Your task to perform on an android device: Open Google Chrome and click the shortcut for Amazon.com Image 0: 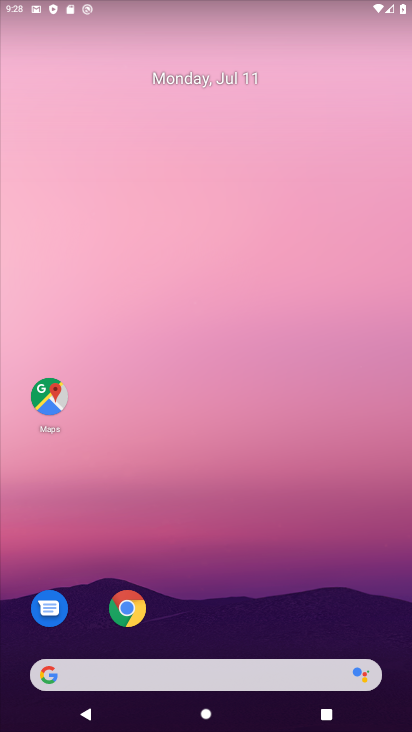
Step 0: drag from (246, 693) to (163, 178)
Your task to perform on an android device: Open Google Chrome and click the shortcut for Amazon.com Image 1: 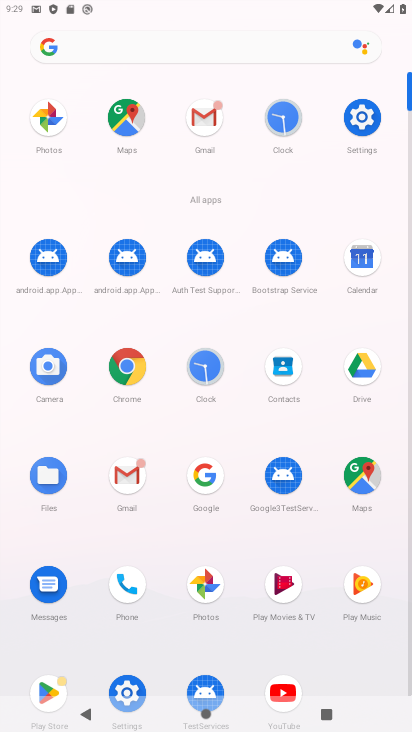
Step 1: click (121, 359)
Your task to perform on an android device: Open Google Chrome and click the shortcut for Amazon.com Image 2: 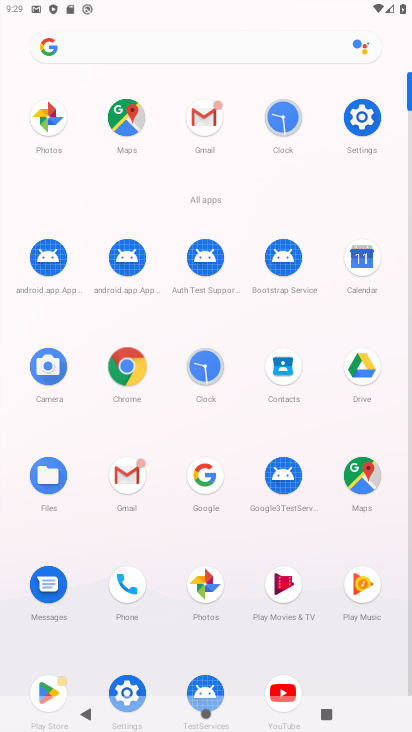
Step 2: click (126, 359)
Your task to perform on an android device: Open Google Chrome and click the shortcut for Amazon.com Image 3: 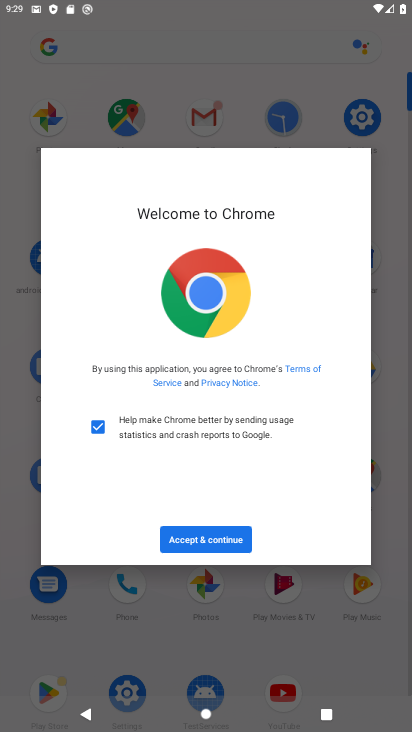
Step 3: click (212, 527)
Your task to perform on an android device: Open Google Chrome and click the shortcut for Amazon.com Image 4: 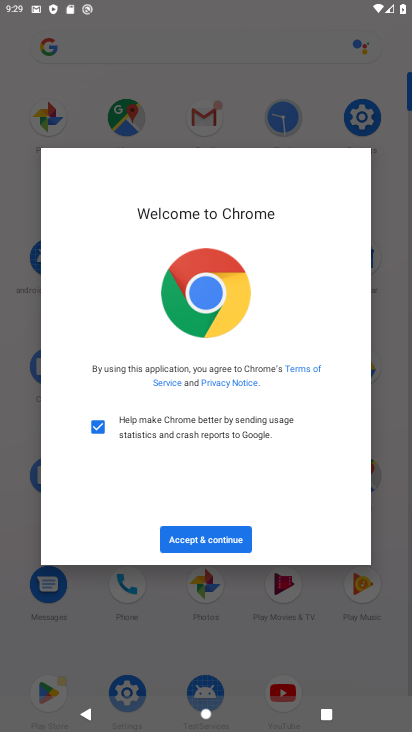
Step 4: click (212, 527)
Your task to perform on an android device: Open Google Chrome and click the shortcut for Amazon.com Image 5: 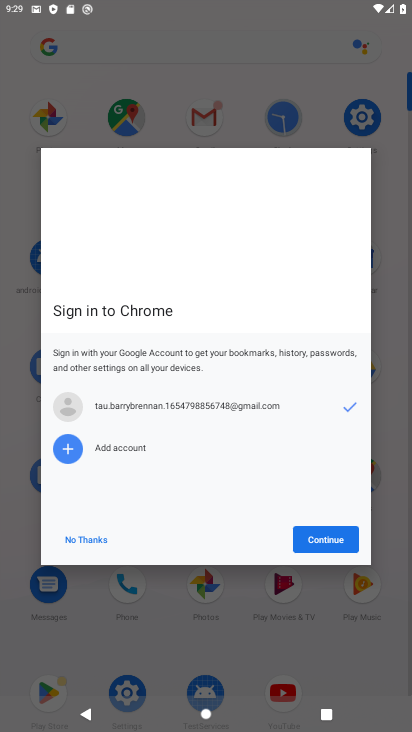
Step 5: click (333, 539)
Your task to perform on an android device: Open Google Chrome and click the shortcut for Amazon.com Image 6: 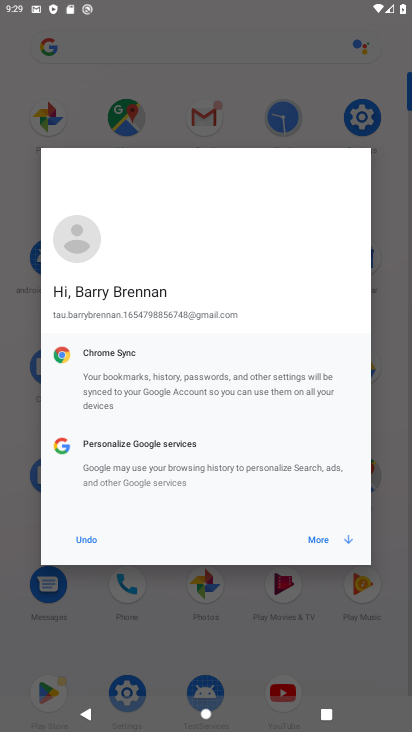
Step 6: click (334, 540)
Your task to perform on an android device: Open Google Chrome and click the shortcut for Amazon.com Image 7: 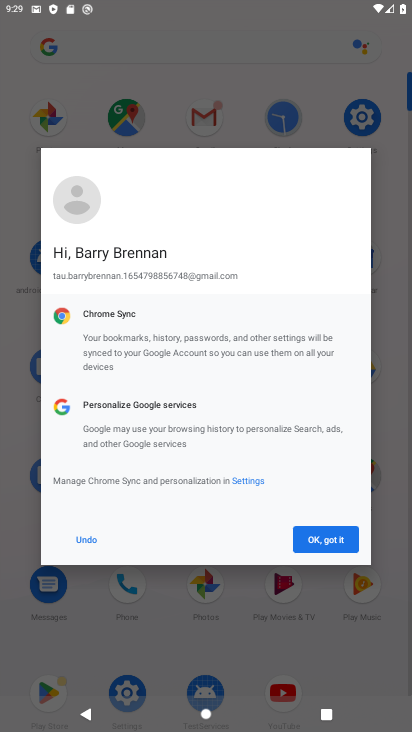
Step 7: click (345, 537)
Your task to perform on an android device: Open Google Chrome and click the shortcut for Amazon.com Image 8: 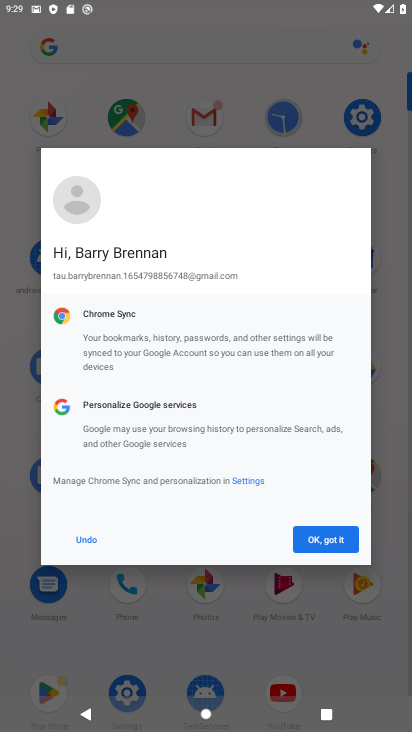
Step 8: click (344, 544)
Your task to perform on an android device: Open Google Chrome and click the shortcut for Amazon.com Image 9: 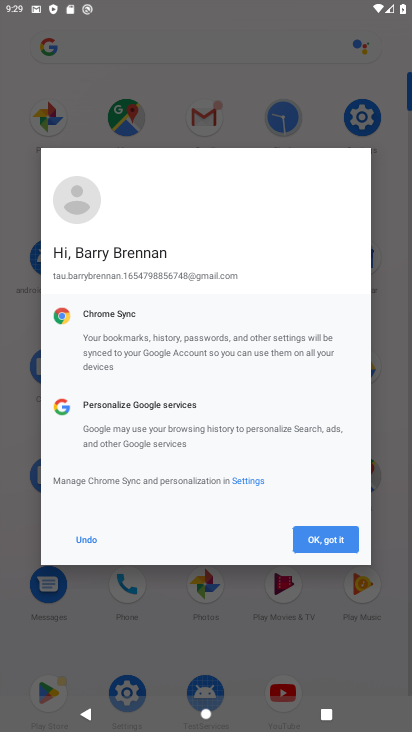
Step 9: click (344, 546)
Your task to perform on an android device: Open Google Chrome and click the shortcut for Amazon.com Image 10: 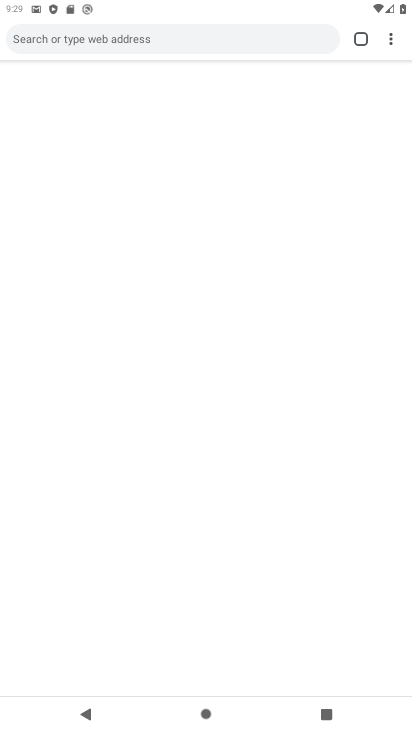
Step 10: press back button
Your task to perform on an android device: Open Google Chrome and click the shortcut for Amazon.com Image 11: 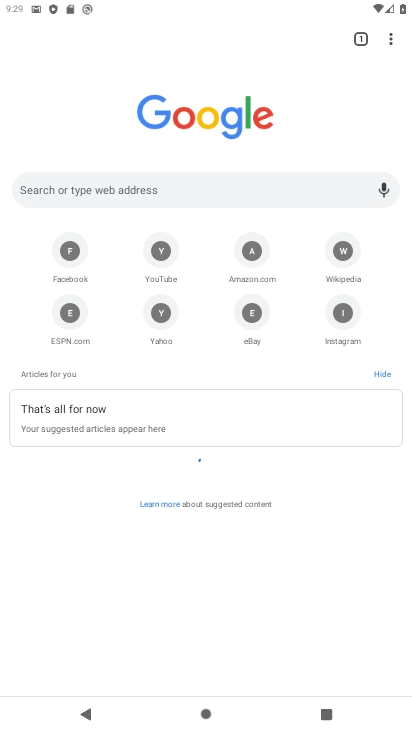
Step 11: press back button
Your task to perform on an android device: Open Google Chrome and click the shortcut for Amazon.com Image 12: 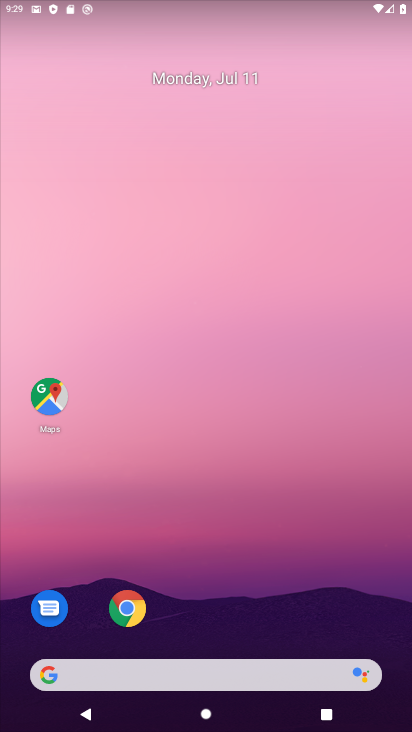
Step 12: drag from (241, 614) to (225, 100)
Your task to perform on an android device: Open Google Chrome and click the shortcut for Amazon.com Image 13: 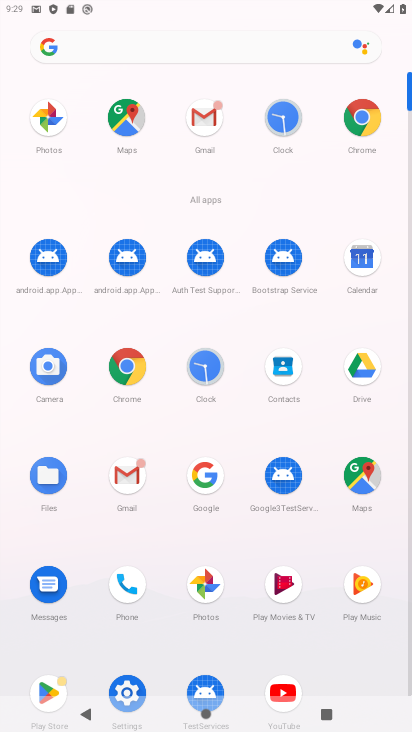
Step 13: click (133, 356)
Your task to perform on an android device: Open Google Chrome and click the shortcut for Amazon.com Image 14: 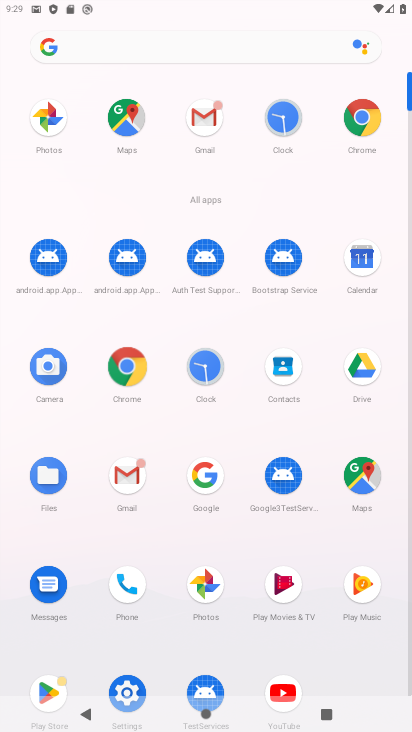
Step 14: click (134, 356)
Your task to perform on an android device: Open Google Chrome and click the shortcut for Amazon.com Image 15: 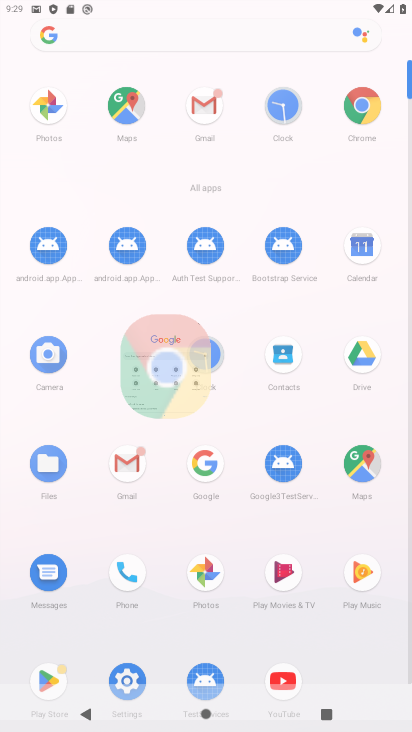
Step 15: click (133, 357)
Your task to perform on an android device: Open Google Chrome and click the shortcut for Amazon.com Image 16: 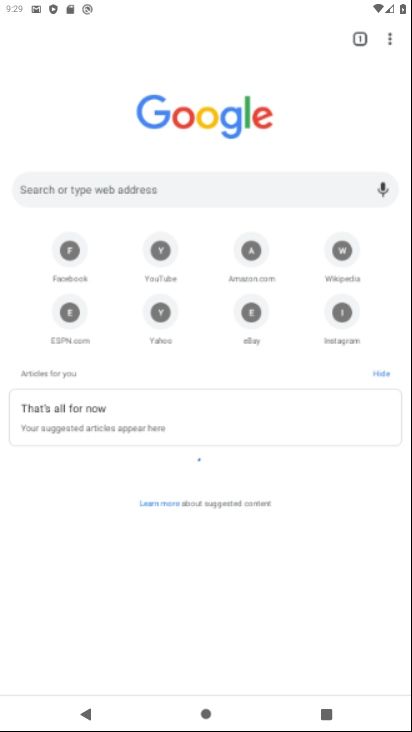
Step 16: click (133, 357)
Your task to perform on an android device: Open Google Chrome and click the shortcut for Amazon.com Image 17: 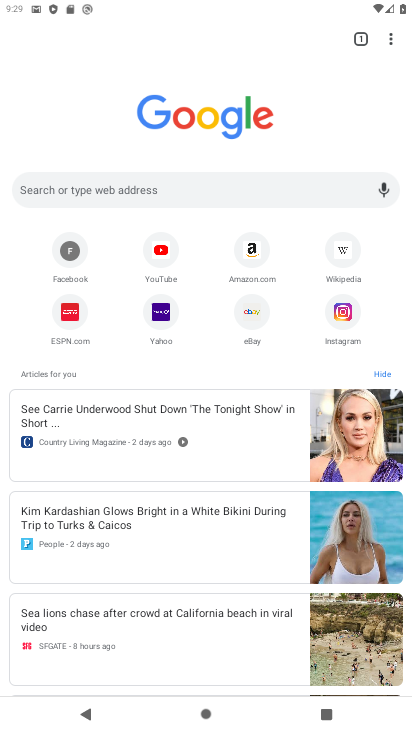
Step 17: click (242, 246)
Your task to perform on an android device: Open Google Chrome and click the shortcut for Amazon.com Image 18: 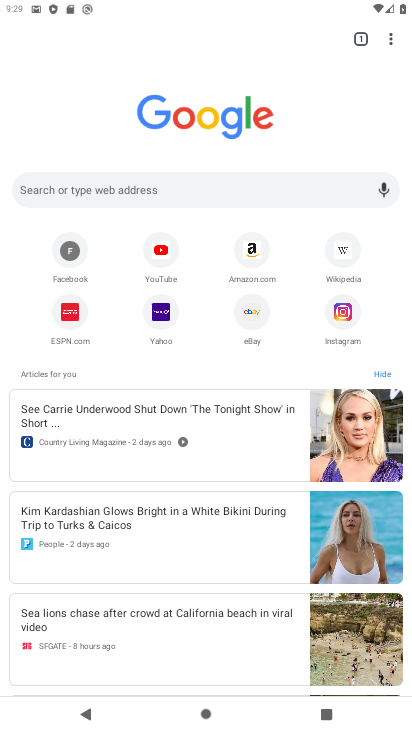
Step 18: click (243, 246)
Your task to perform on an android device: Open Google Chrome and click the shortcut for Amazon.com Image 19: 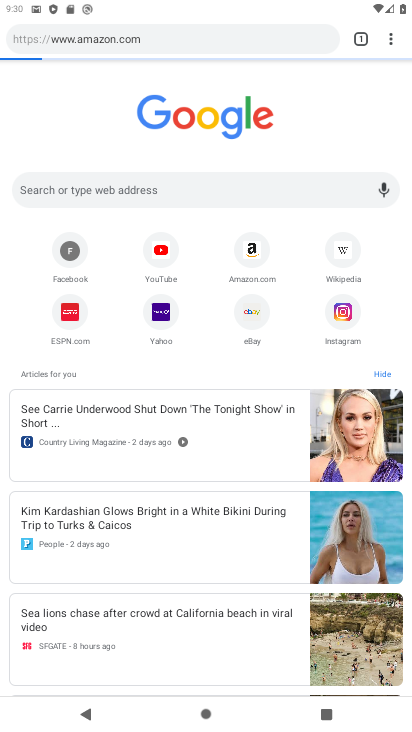
Step 19: click (241, 241)
Your task to perform on an android device: Open Google Chrome and click the shortcut for Amazon.com Image 20: 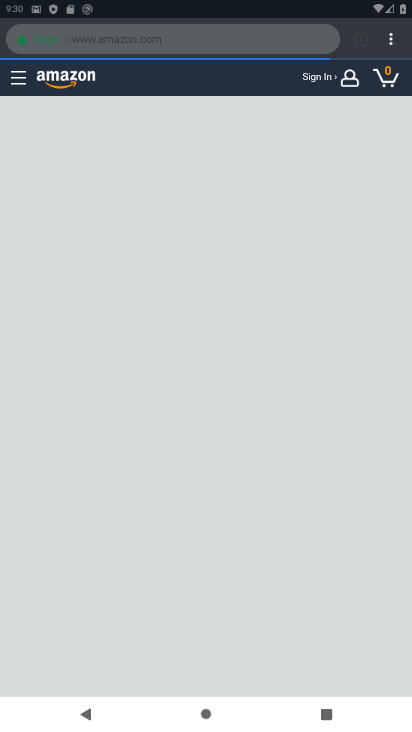
Step 20: task complete